Your task to perform on an android device: Open display settings Image 0: 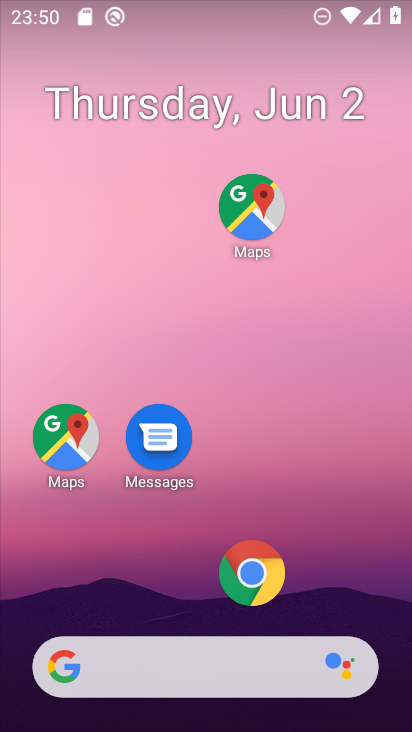
Step 0: drag from (305, 477) to (178, 57)
Your task to perform on an android device: Open display settings Image 1: 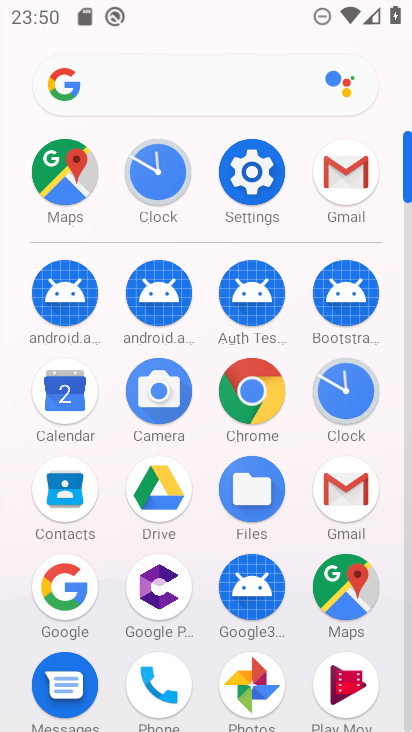
Step 1: click (248, 170)
Your task to perform on an android device: Open display settings Image 2: 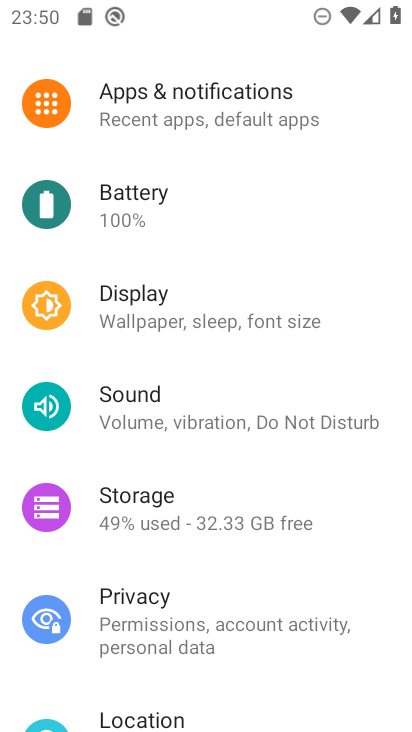
Step 2: click (189, 307)
Your task to perform on an android device: Open display settings Image 3: 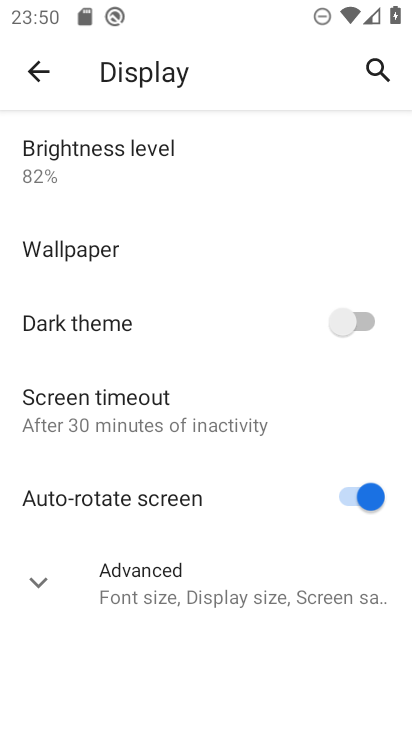
Step 3: task complete